Your task to perform on an android device: move an email to a new category in the gmail app Image 0: 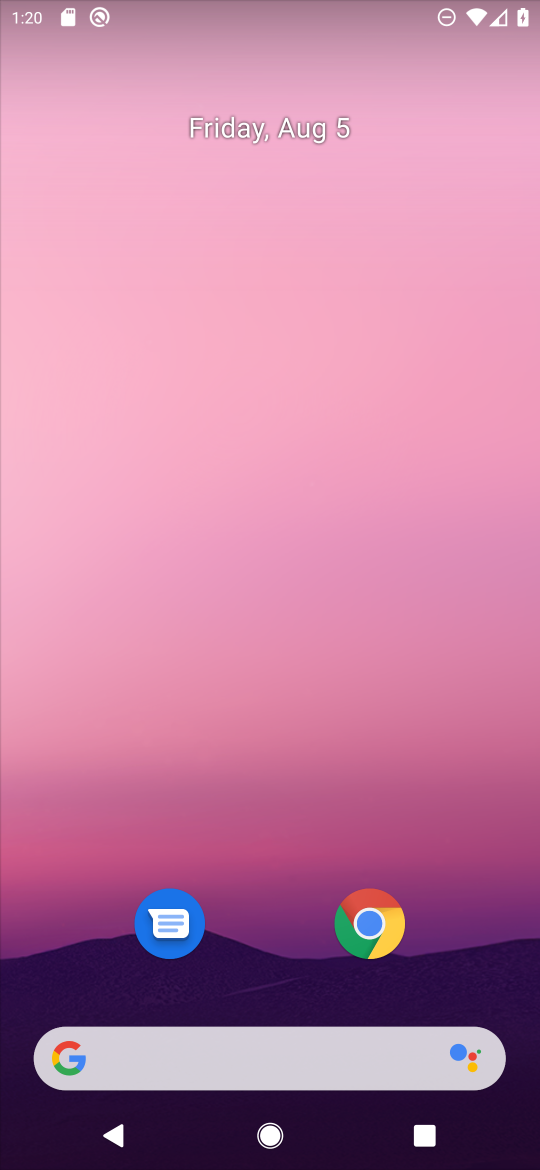
Step 0: drag from (227, 834) to (282, 136)
Your task to perform on an android device: move an email to a new category in the gmail app Image 1: 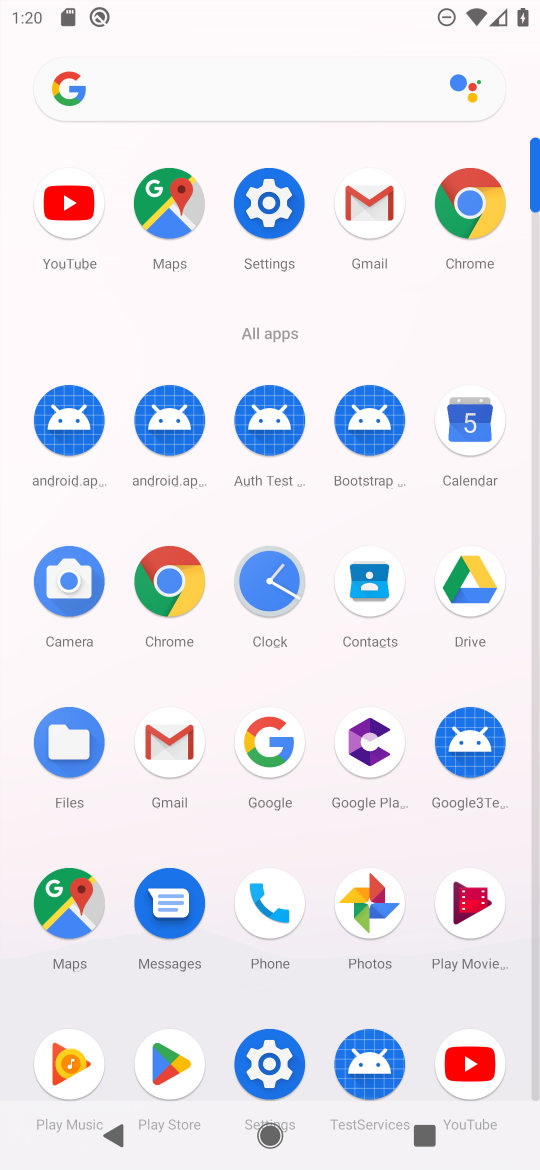
Step 1: click (189, 758)
Your task to perform on an android device: move an email to a new category in the gmail app Image 2: 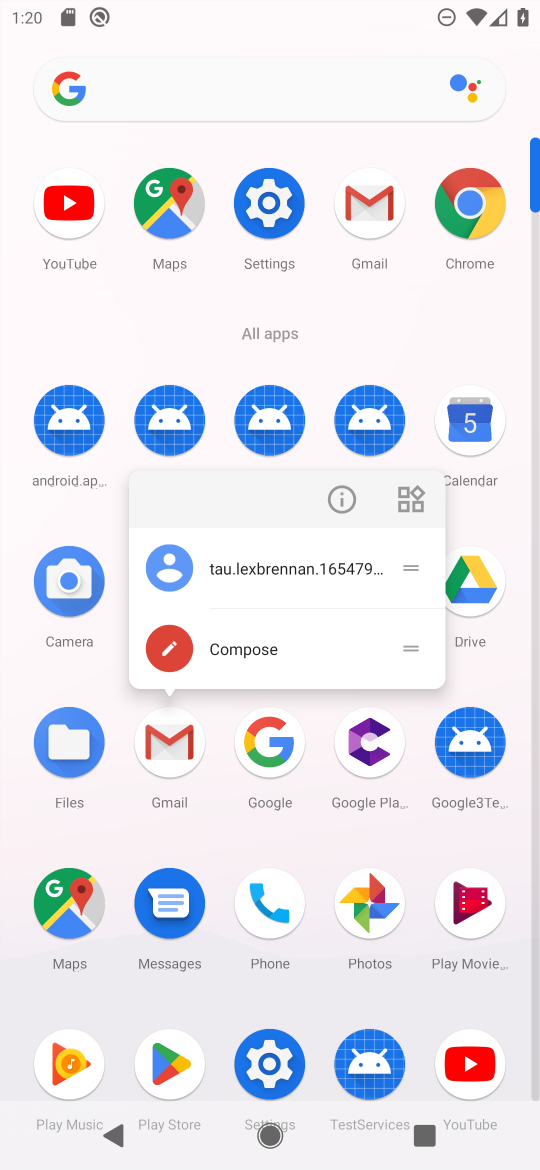
Step 2: click (133, 739)
Your task to perform on an android device: move an email to a new category in the gmail app Image 3: 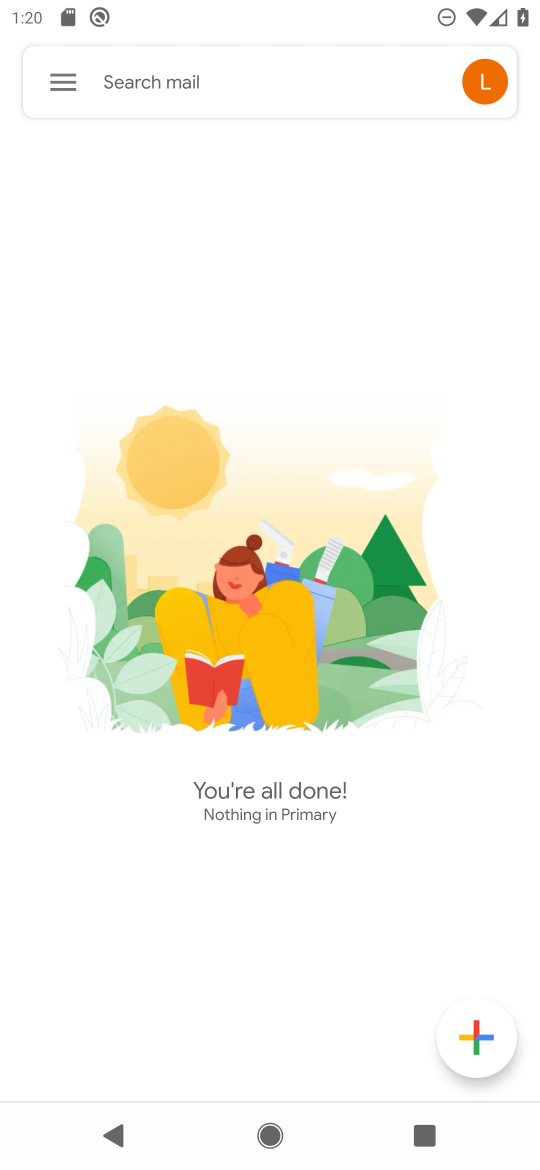
Step 3: task complete